Your task to perform on an android device: open chrome and create a bookmark for the current page Image 0: 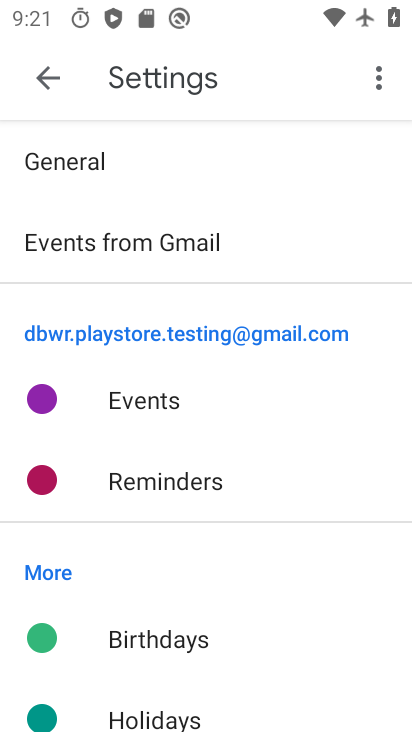
Step 0: press home button
Your task to perform on an android device: open chrome and create a bookmark for the current page Image 1: 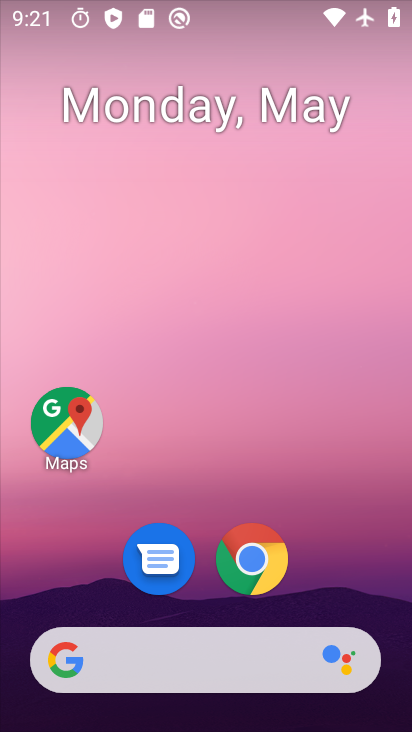
Step 1: click (254, 564)
Your task to perform on an android device: open chrome and create a bookmark for the current page Image 2: 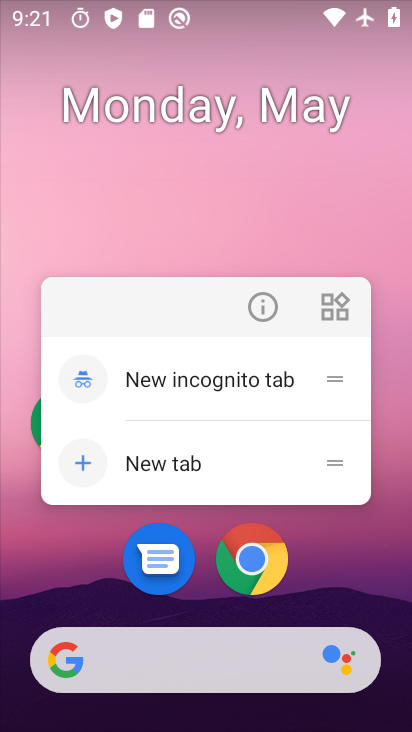
Step 2: click (249, 555)
Your task to perform on an android device: open chrome and create a bookmark for the current page Image 3: 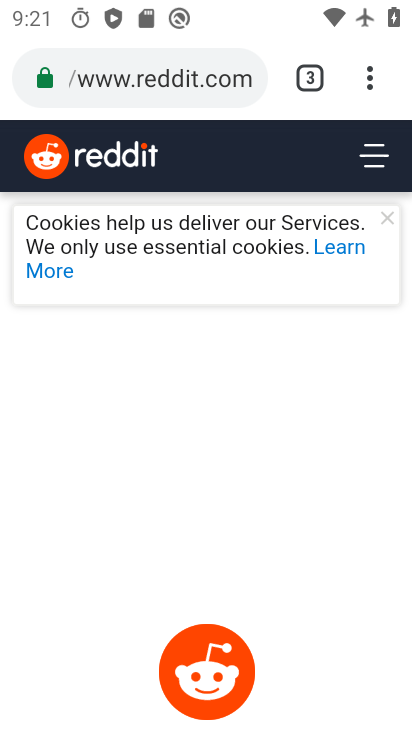
Step 3: click (368, 69)
Your task to perform on an android device: open chrome and create a bookmark for the current page Image 4: 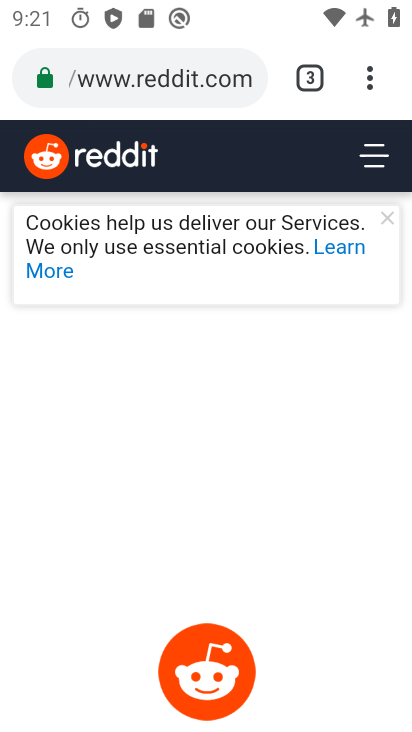
Step 4: click (365, 75)
Your task to perform on an android device: open chrome and create a bookmark for the current page Image 5: 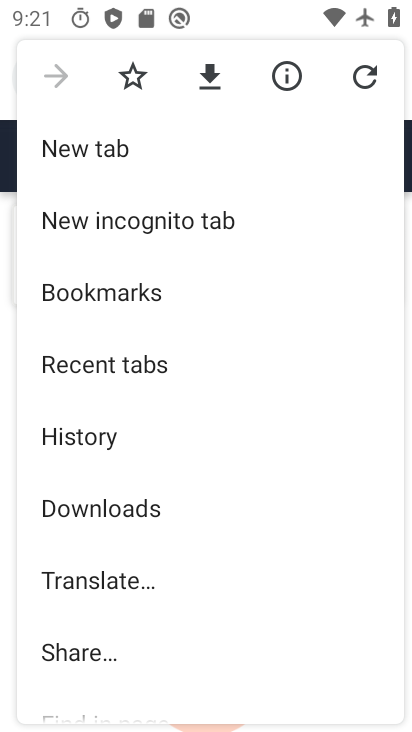
Step 5: click (129, 82)
Your task to perform on an android device: open chrome and create a bookmark for the current page Image 6: 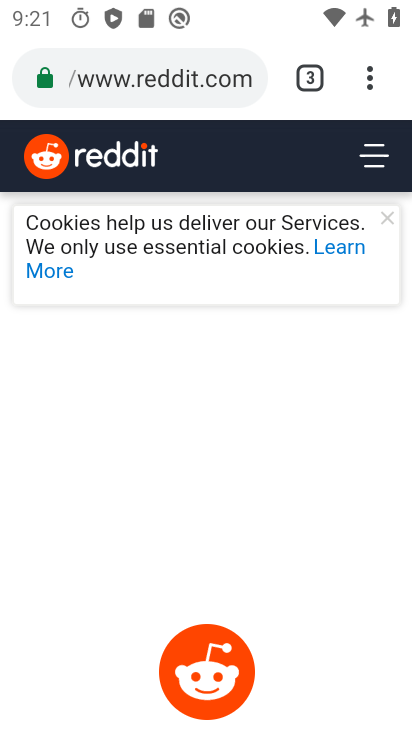
Step 6: task complete